Your task to perform on an android device: see tabs open on other devices in the chrome app Image 0: 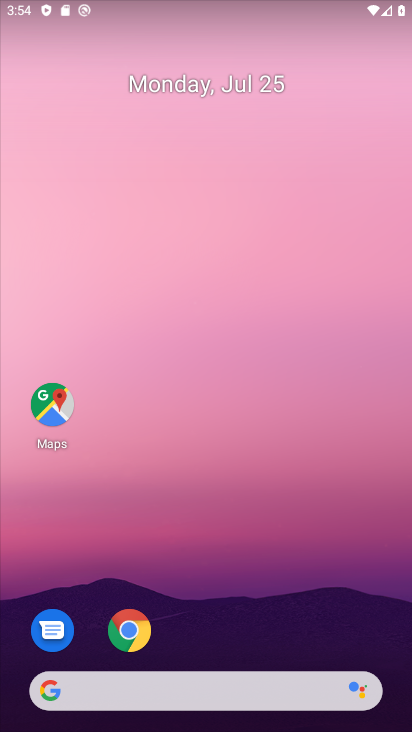
Step 0: drag from (276, 612) to (235, 295)
Your task to perform on an android device: see tabs open on other devices in the chrome app Image 1: 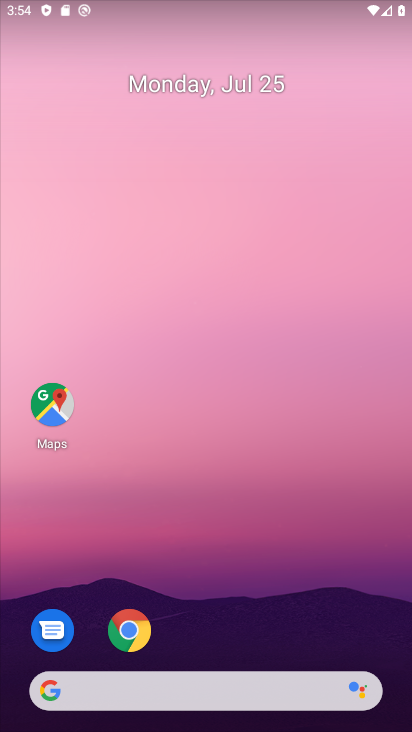
Step 1: click (126, 638)
Your task to perform on an android device: see tabs open on other devices in the chrome app Image 2: 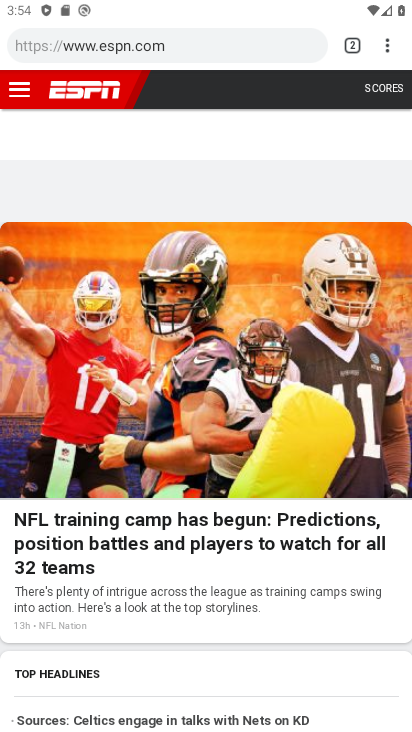
Step 2: click (394, 44)
Your task to perform on an android device: see tabs open on other devices in the chrome app Image 3: 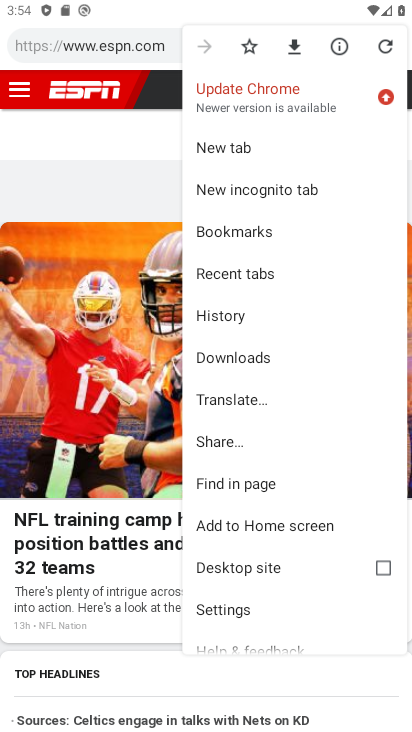
Step 3: click (278, 269)
Your task to perform on an android device: see tabs open on other devices in the chrome app Image 4: 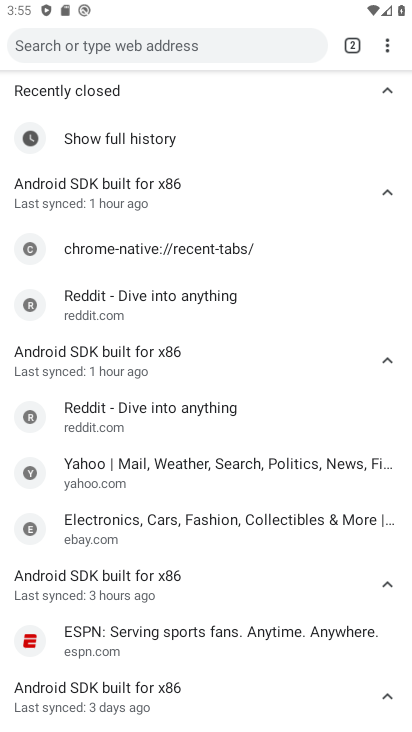
Step 4: task complete